Your task to perform on an android device: delete a single message in the gmail app Image 0: 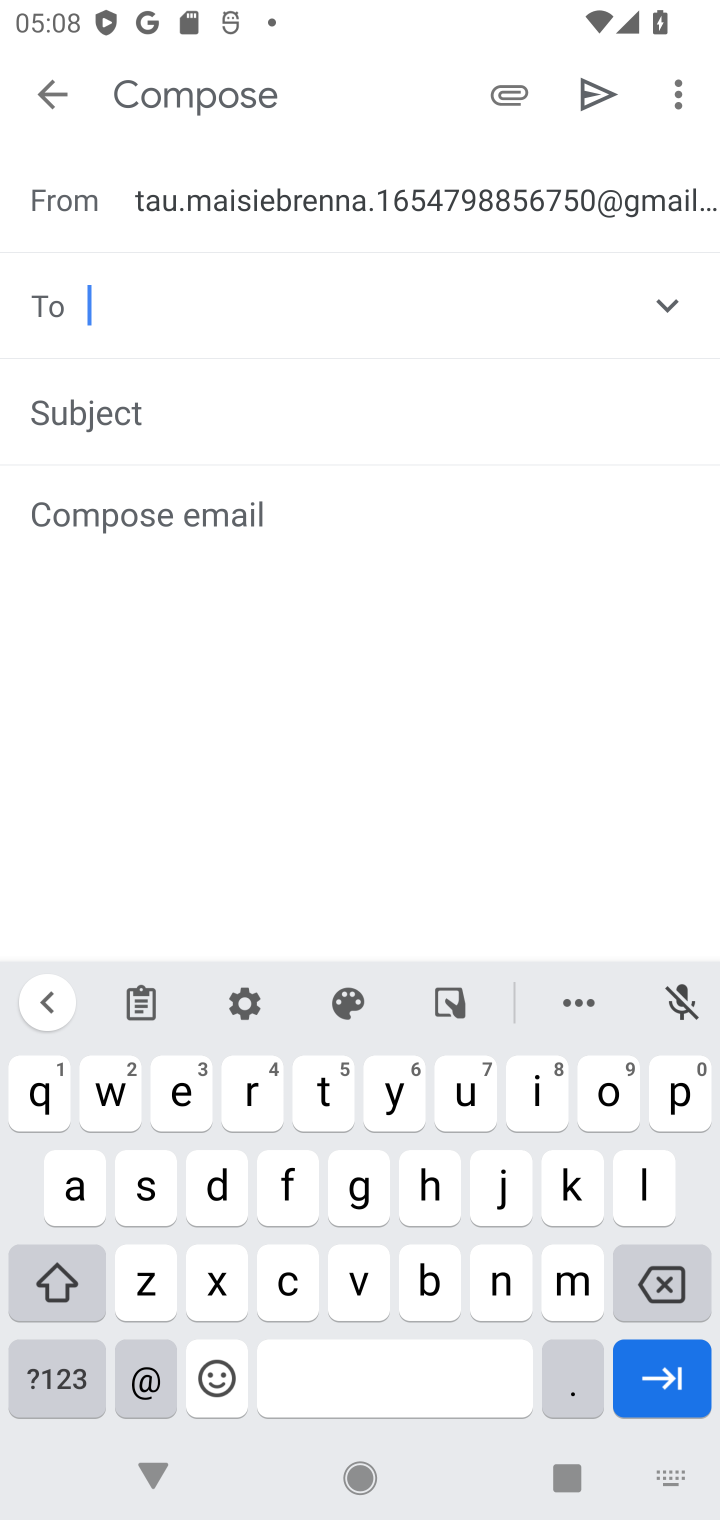
Step 0: press home button
Your task to perform on an android device: delete a single message in the gmail app Image 1: 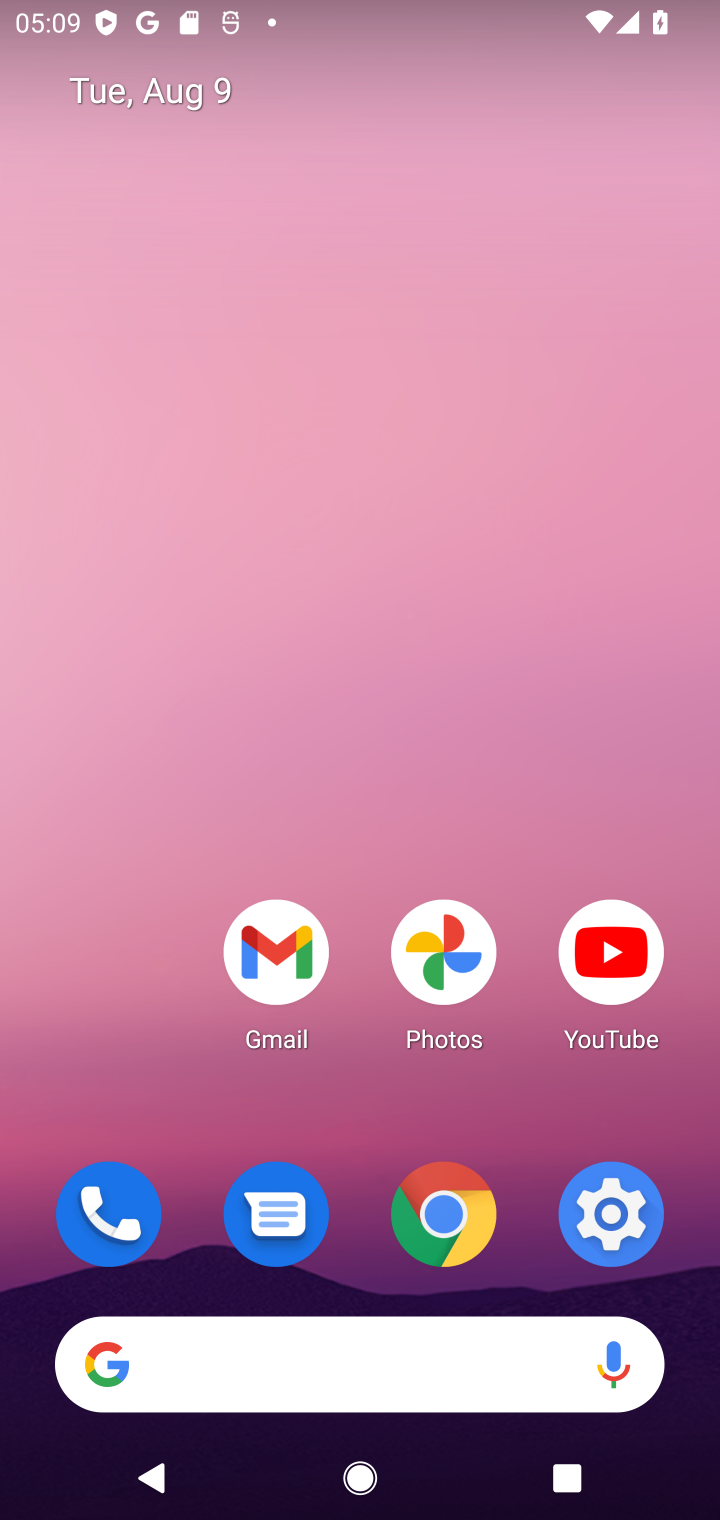
Step 1: drag from (478, 1380) to (395, 337)
Your task to perform on an android device: delete a single message in the gmail app Image 2: 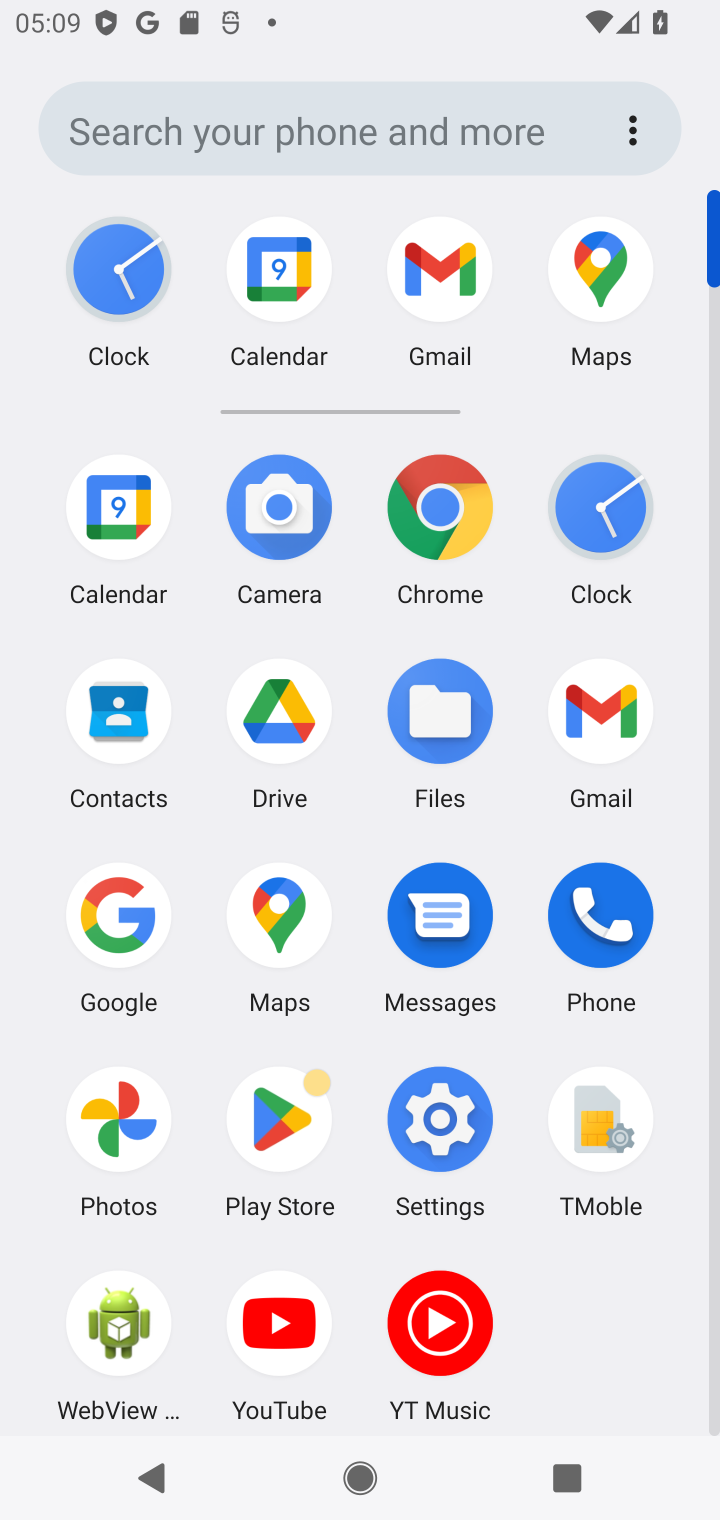
Step 2: click (439, 290)
Your task to perform on an android device: delete a single message in the gmail app Image 3: 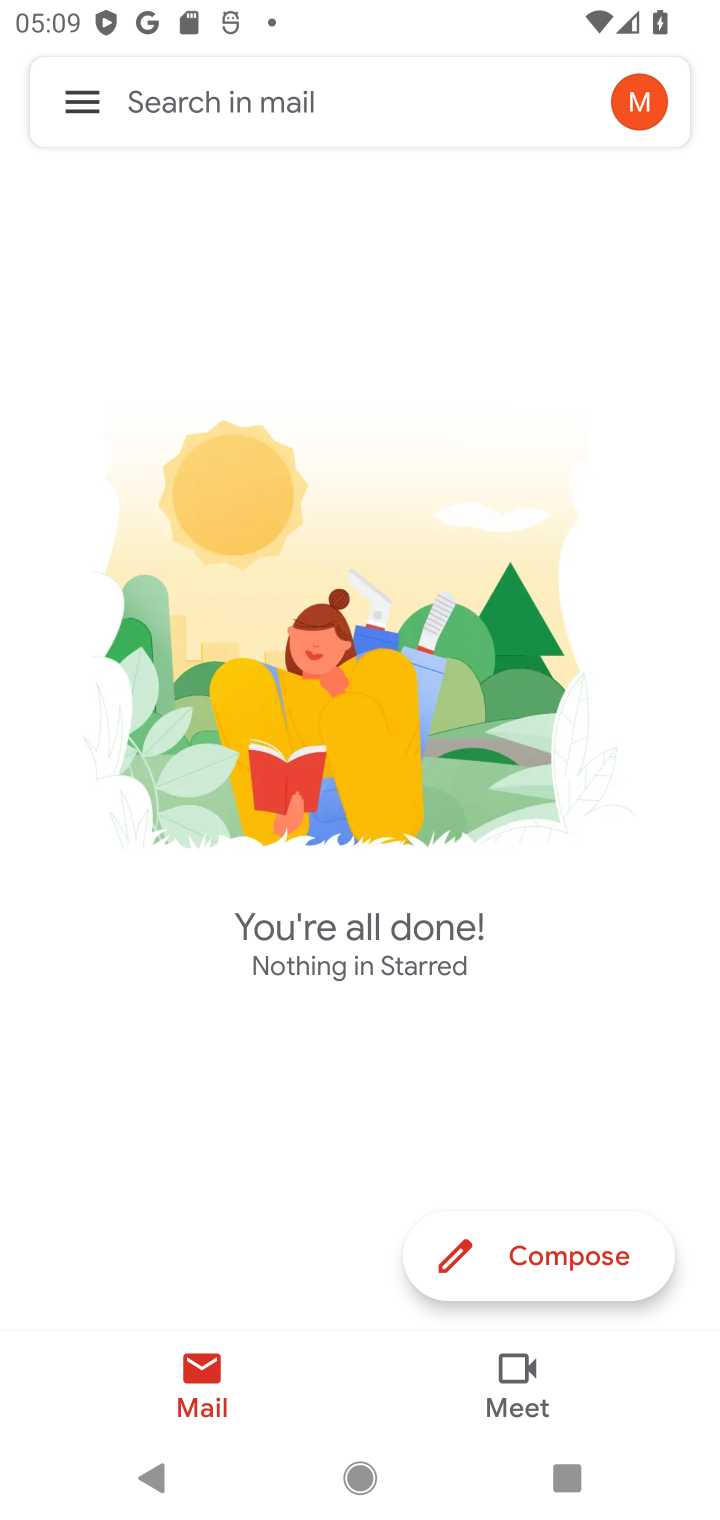
Step 3: click (93, 118)
Your task to perform on an android device: delete a single message in the gmail app Image 4: 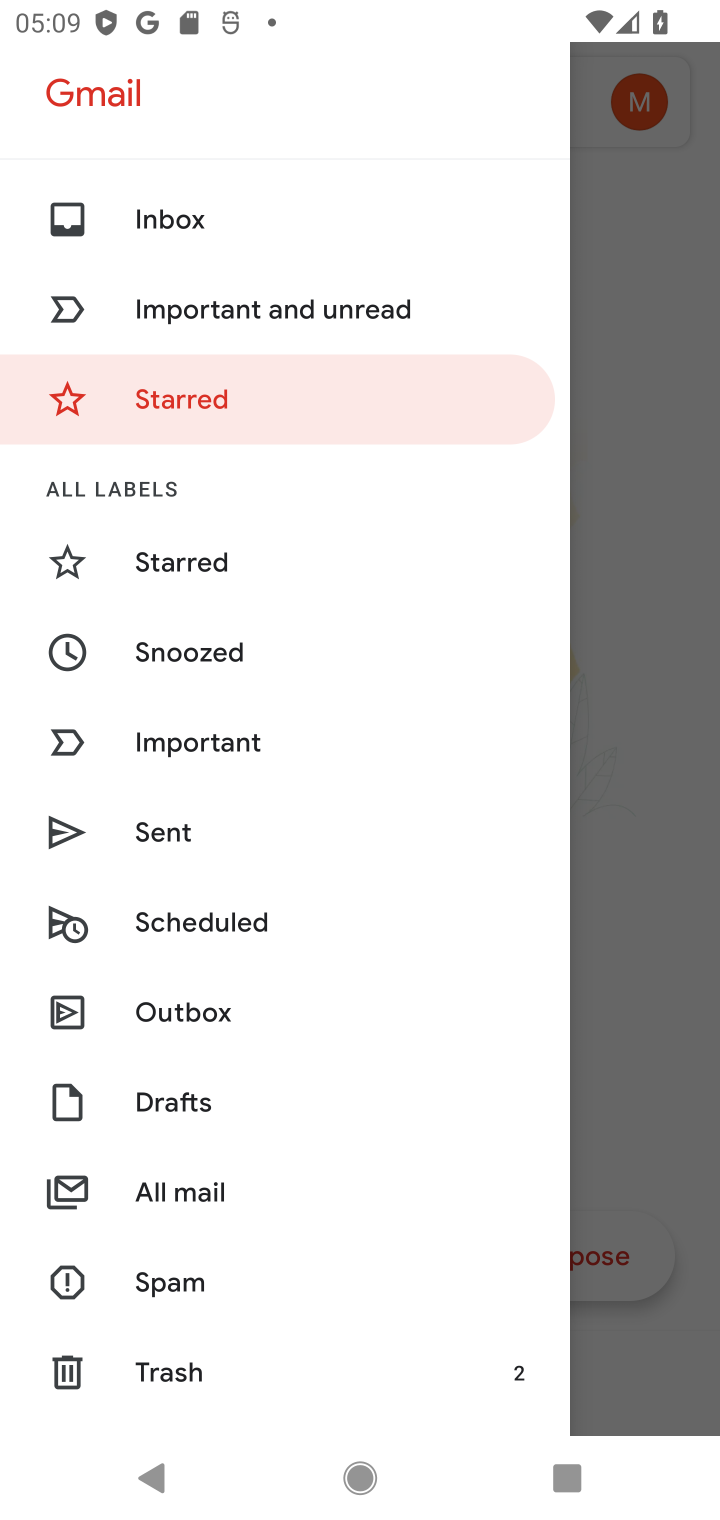
Step 4: click (177, 1187)
Your task to perform on an android device: delete a single message in the gmail app Image 5: 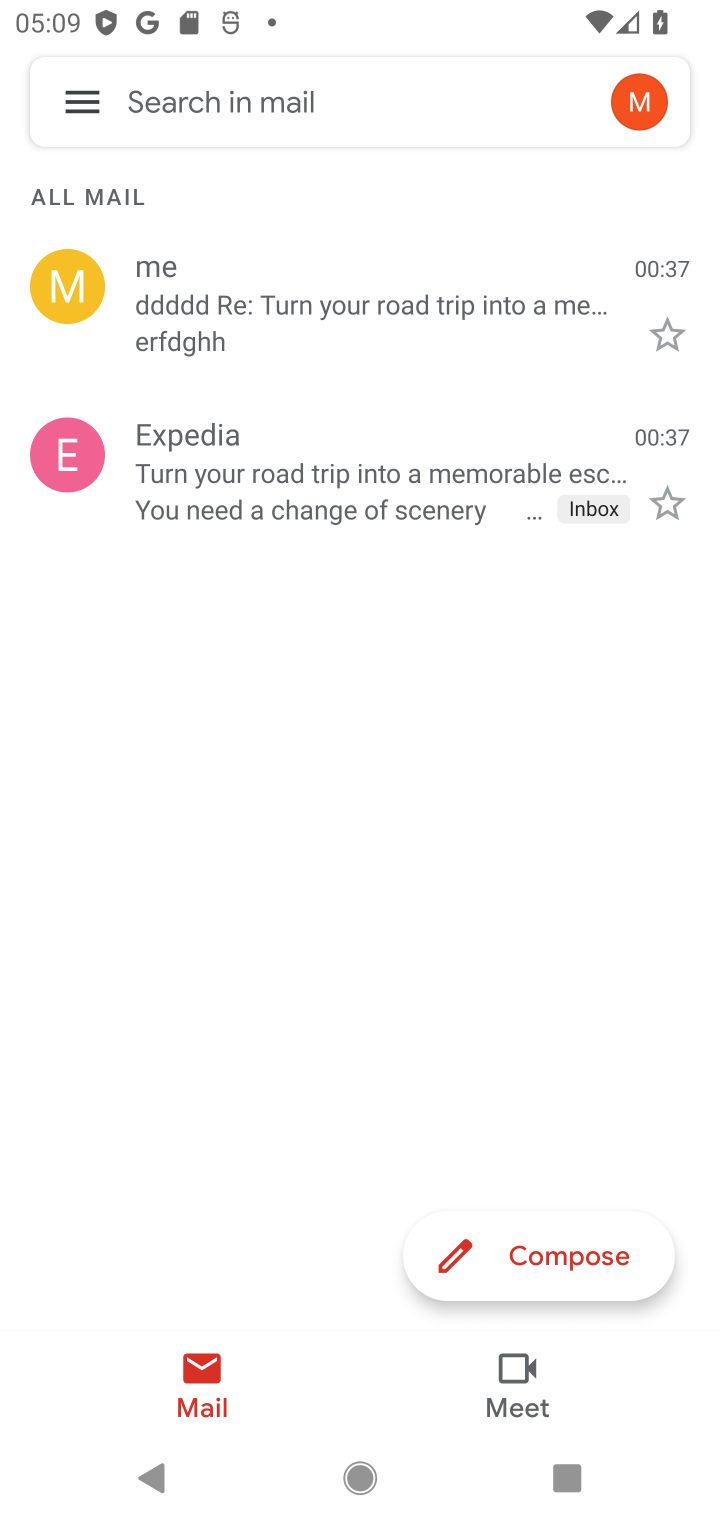
Step 5: click (189, 294)
Your task to perform on an android device: delete a single message in the gmail app Image 6: 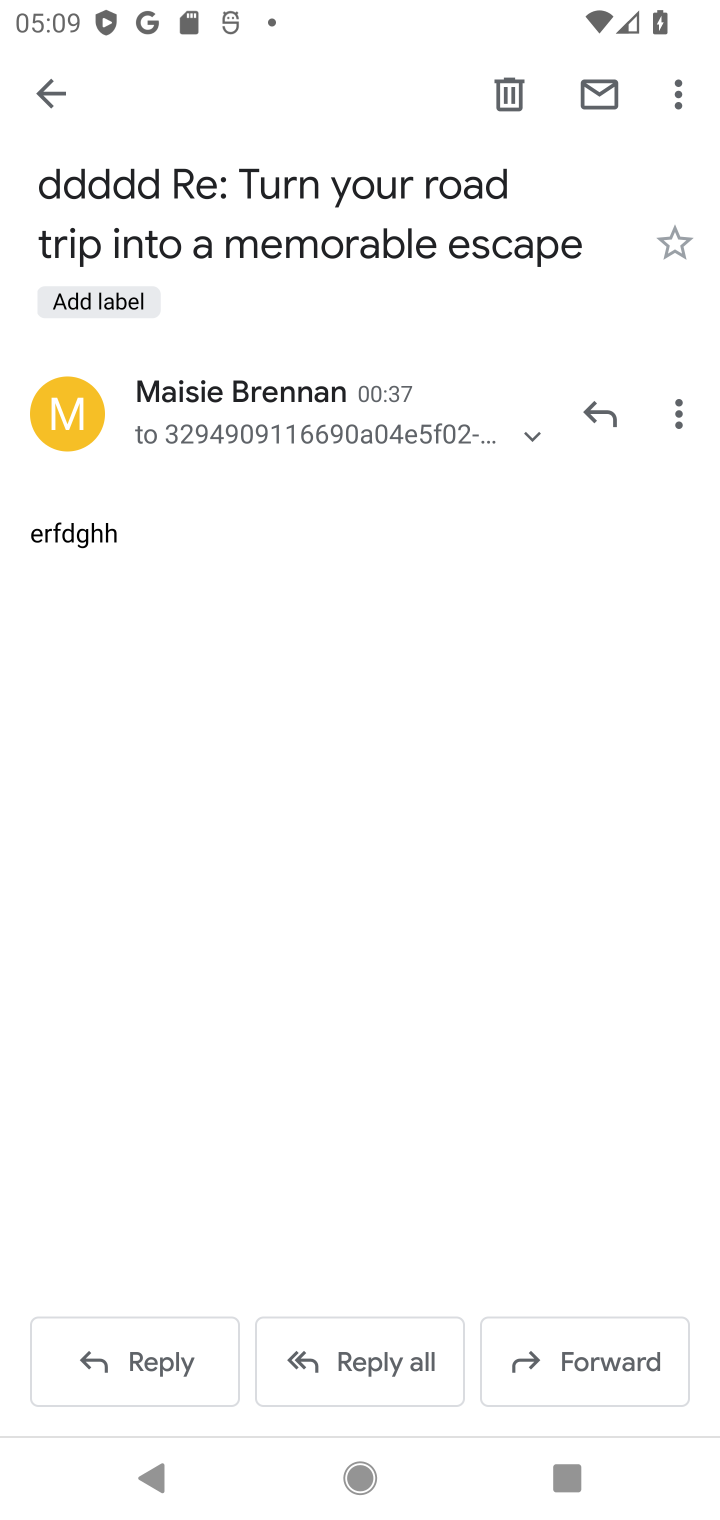
Step 6: click (497, 91)
Your task to perform on an android device: delete a single message in the gmail app Image 7: 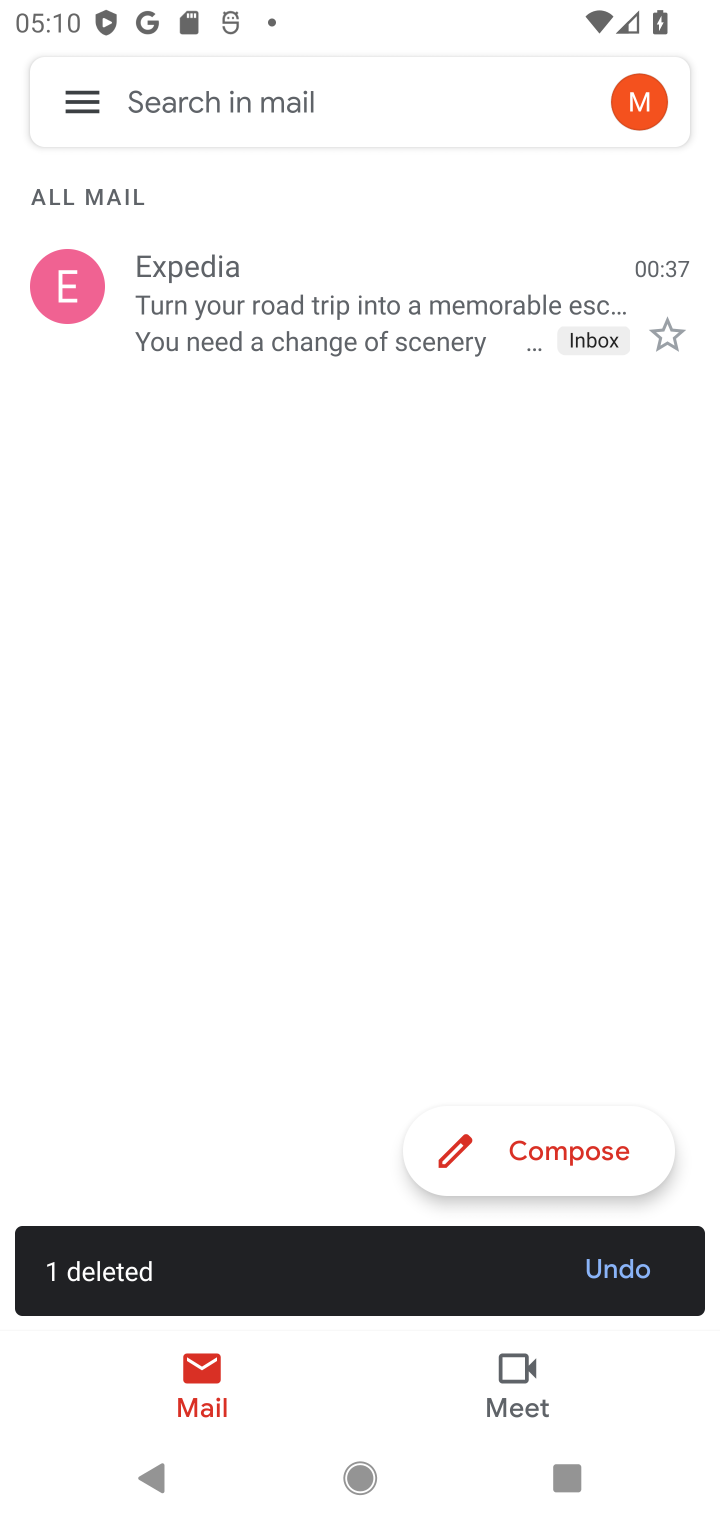
Step 7: task complete